Your task to perform on an android device: Open accessibility settings Image 0: 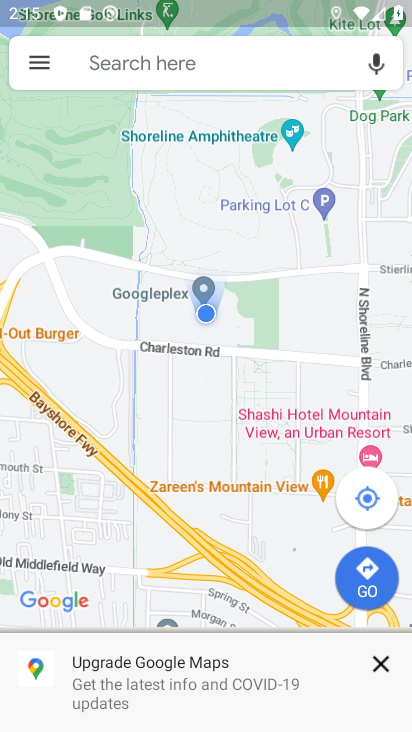
Step 0: press home button
Your task to perform on an android device: Open accessibility settings Image 1: 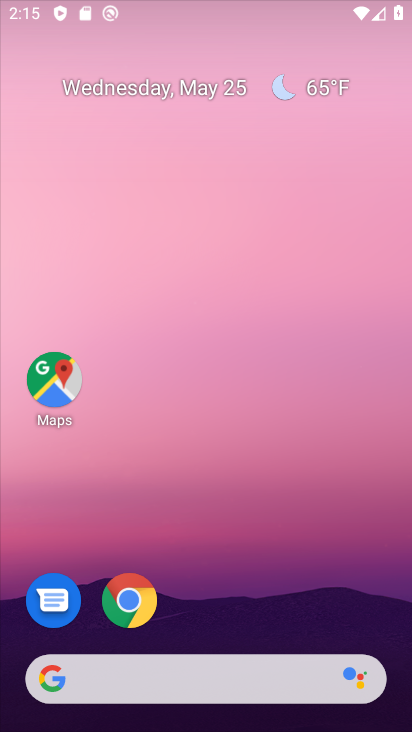
Step 1: drag from (264, 506) to (231, 134)
Your task to perform on an android device: Open accessibility settings Image 2: 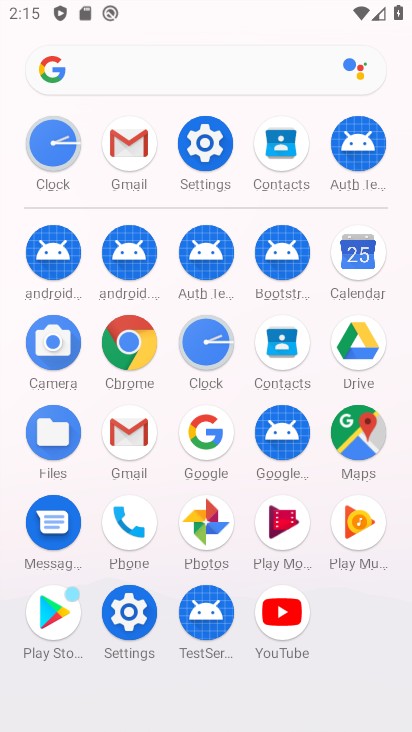
Step 2: click (187, 140)
Your task to perform on an android device: Open accessibility settings Image 3: 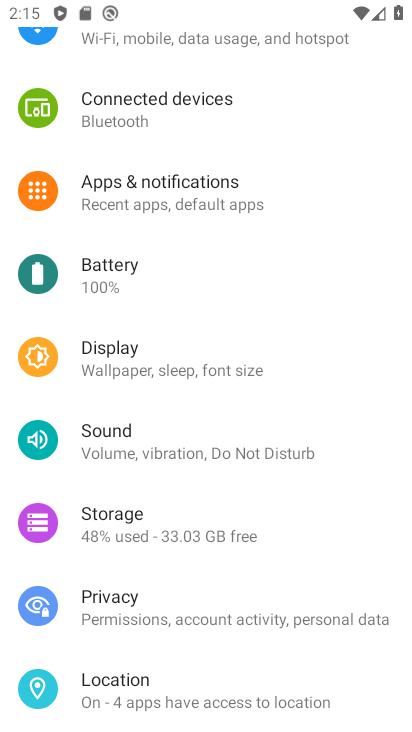
Step 3: drag from (184, 580) to (331, 143)
Your task to perform on an android device: Open accessibility settings Image 4: 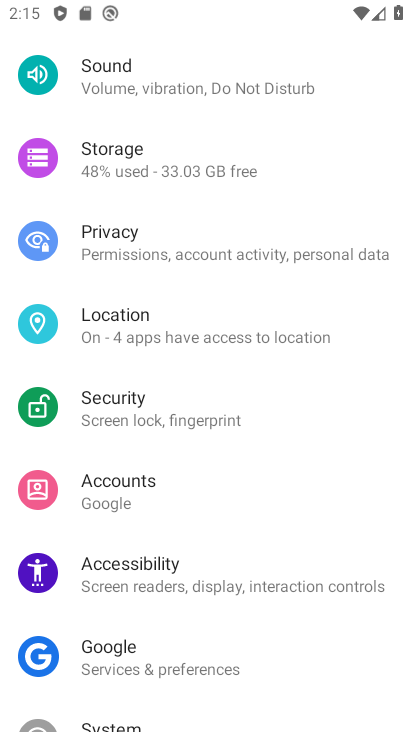
Step 4: click (173, 574)
Your task to perform on an android device: Open accessibility settings Image 5: 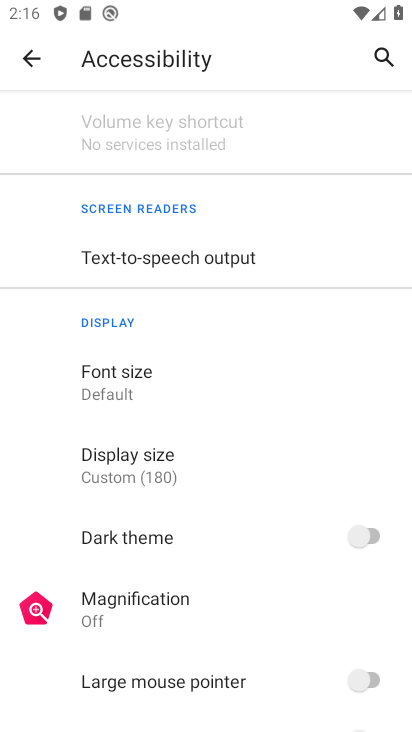
Step 5: task complete